Your task to perform on an android device: Open Chrome and go to settings Image 0: 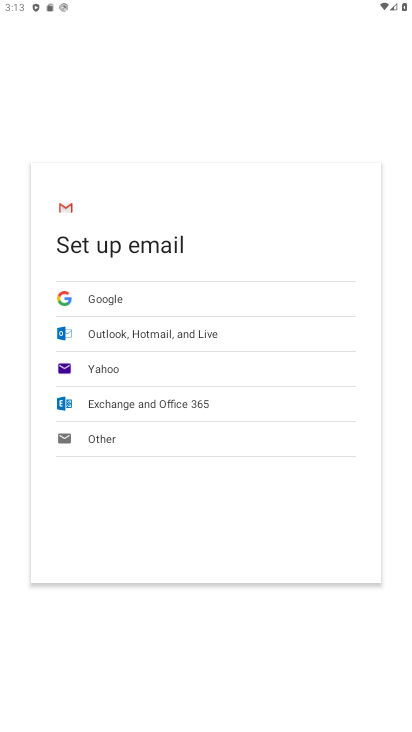
Step 0: press home button
Your task to perform on an android device: Open Chrome and go to settings Image 1: 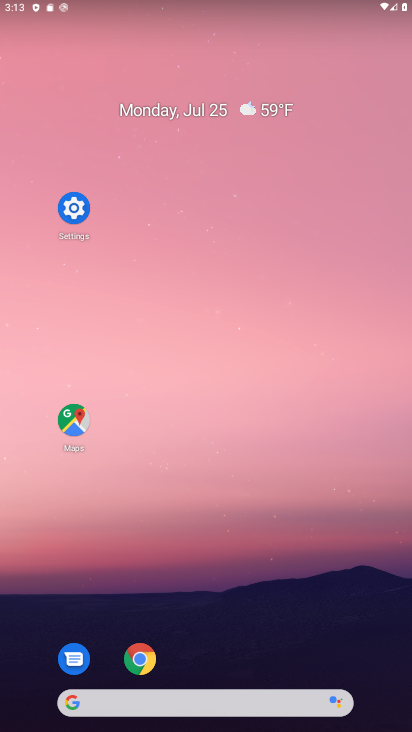
Step 1: click (132, 663)
Your task to perform on an android device: Open Chrome and go to settings Image 2: 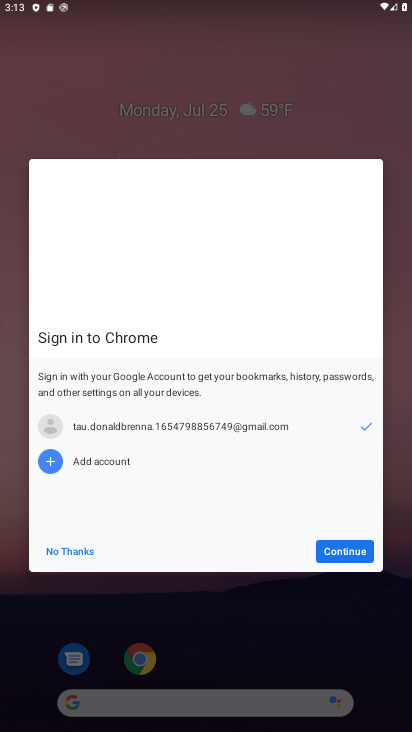
Step 2: click (359, 549)
Your task to perform on an android device: Open Chrome and go to settings Image 3: 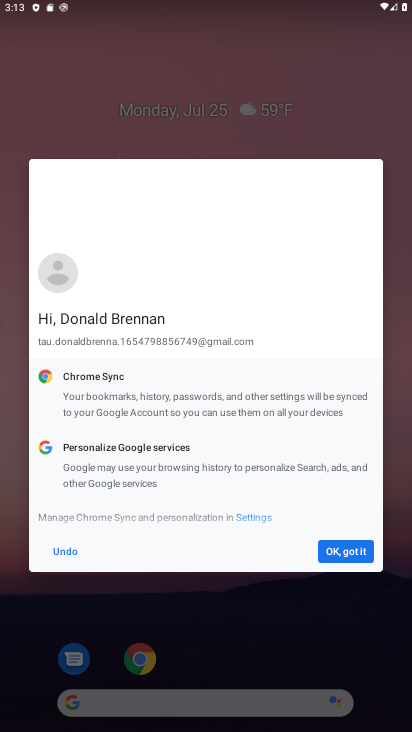
Step 3: click (359, 547)
Your task to perform on an android device: Open Chrome and go to settings Image 4: 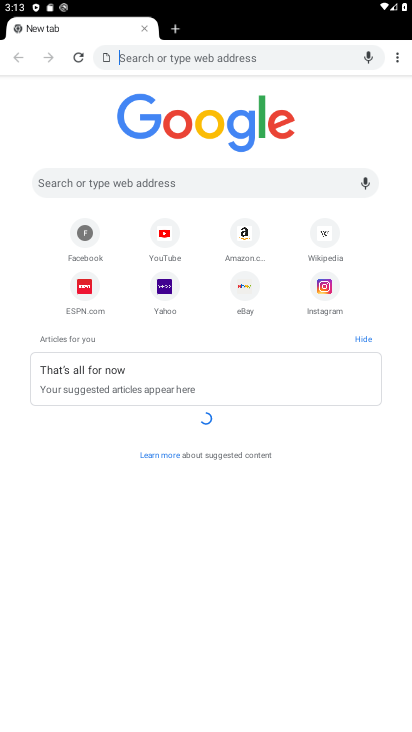
Step 4: click (400, 57)
Your task to perform on an android device: Open Chrome and go to settings Image 5: 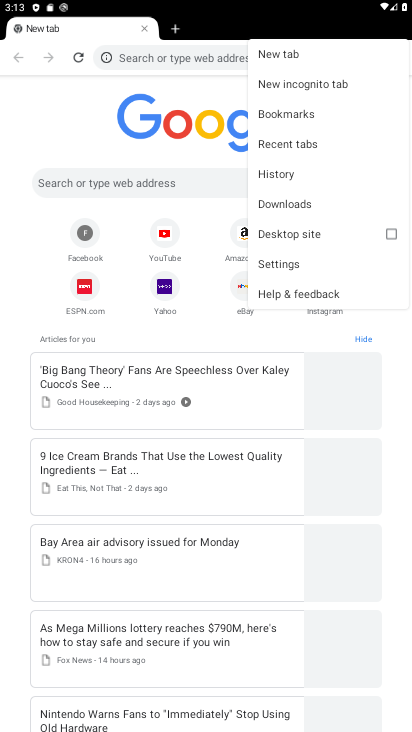
Step 5: click (304, 259)
Your task to perform on an android device: Open Chrome and go to settings Image 6: 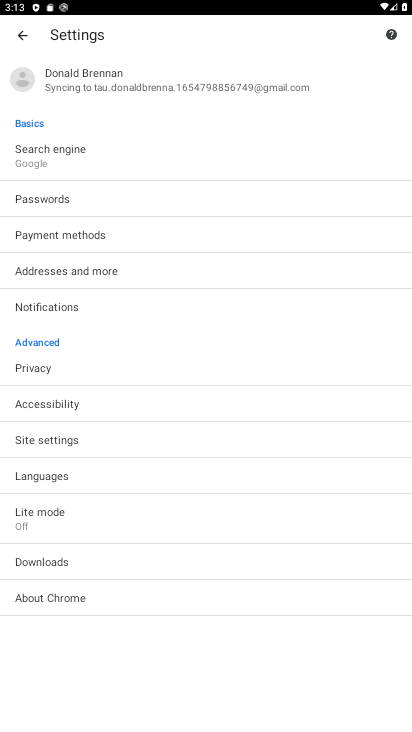
Step 6: task complete